Your task to perform on an android device: allow cookies in the chrome app Image 0: 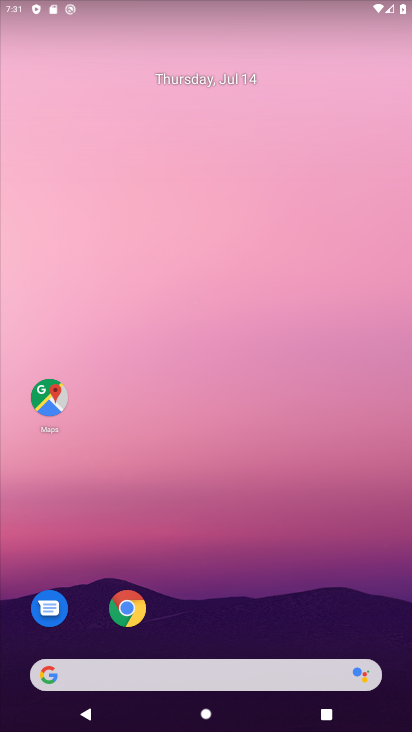
Step 0: click (123, 608)
Your task to perform on an android device: allow cookies in the chrome app Image 1: 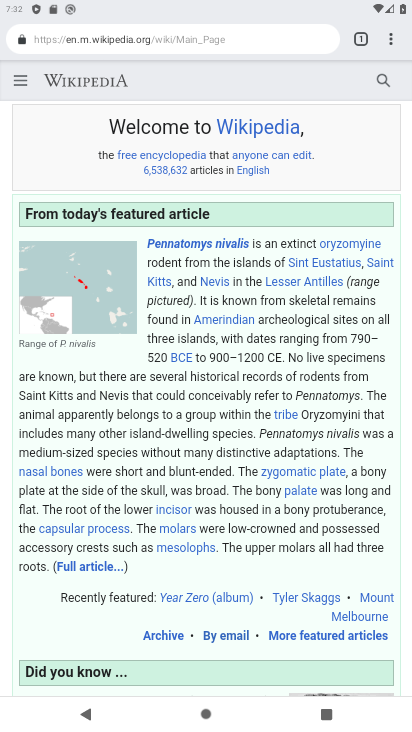
Step 1: click (391, 42)
Your task to perform on an android device: allow cookies in the chrome app Image 2: 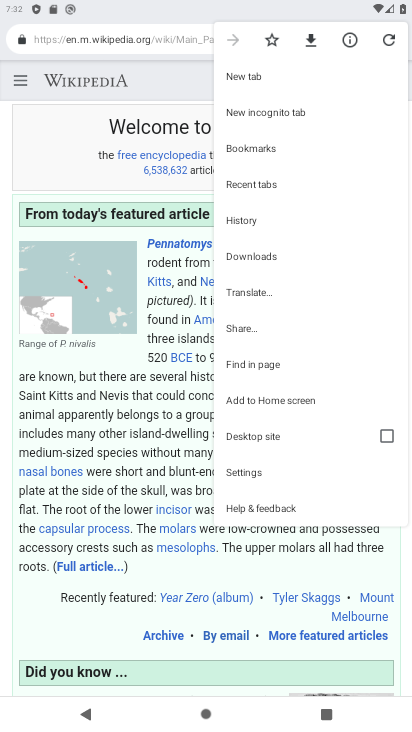
Step 2: click (251, 468)
Your task to perform on an android device: allow cookies in the chrome app Image 3: 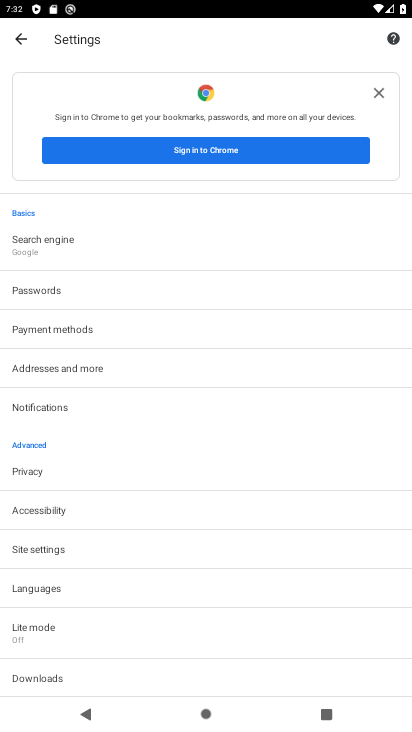
Step 3: click (34, 548)
Your task to perform on an android device: allow cookies in the chrome app Image 4: 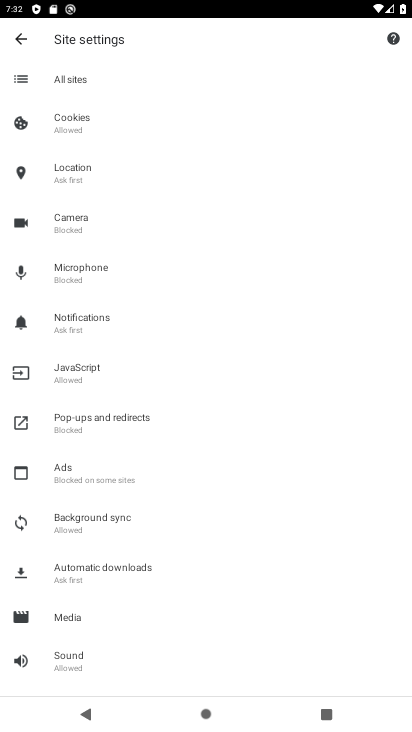
Step 4: click (68, 114)
Your task to perform on an android device: allow cookies in the chrome app Image 5: 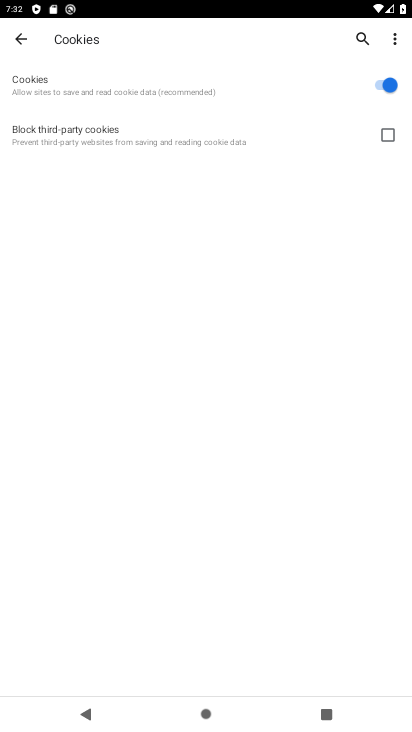
Step 5: task complete